Your task to perform on an android device: Open location settings Image 0: 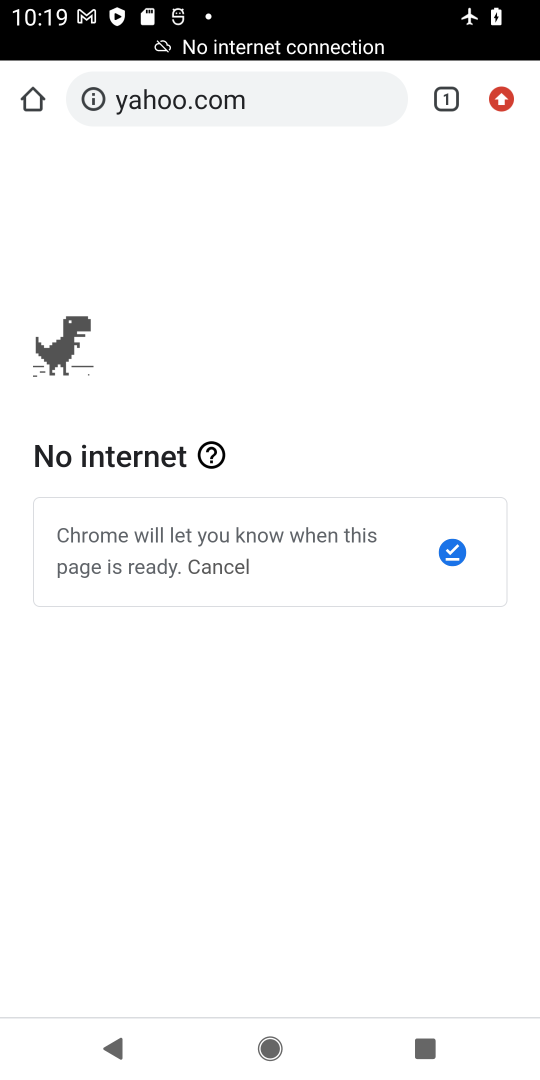
Step 0: press home button
Your task to perform on an android device: Open location settings Image 1: 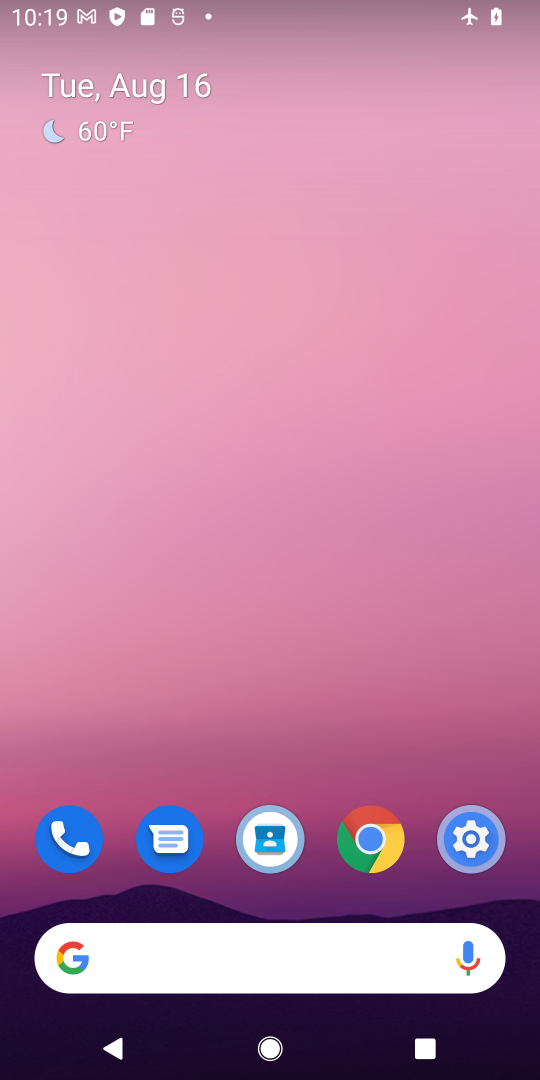
Step 1: drag from (250, 874) to (217, 5)
Your task to perform on an android device: Open location settings Image 2: 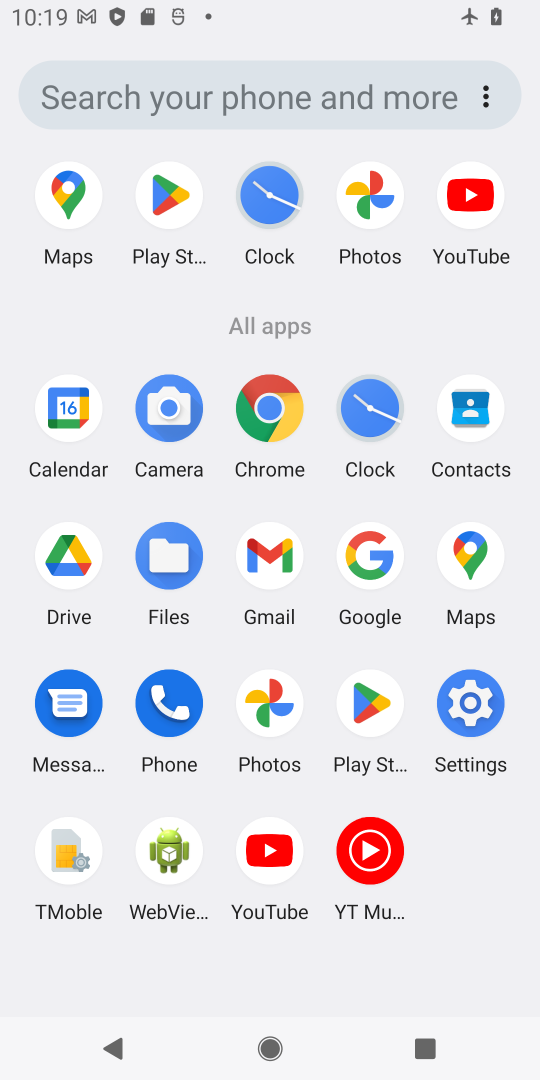
Step 2: click (480, 720)
Your task to perform on an android device: Open location settings Image 3: 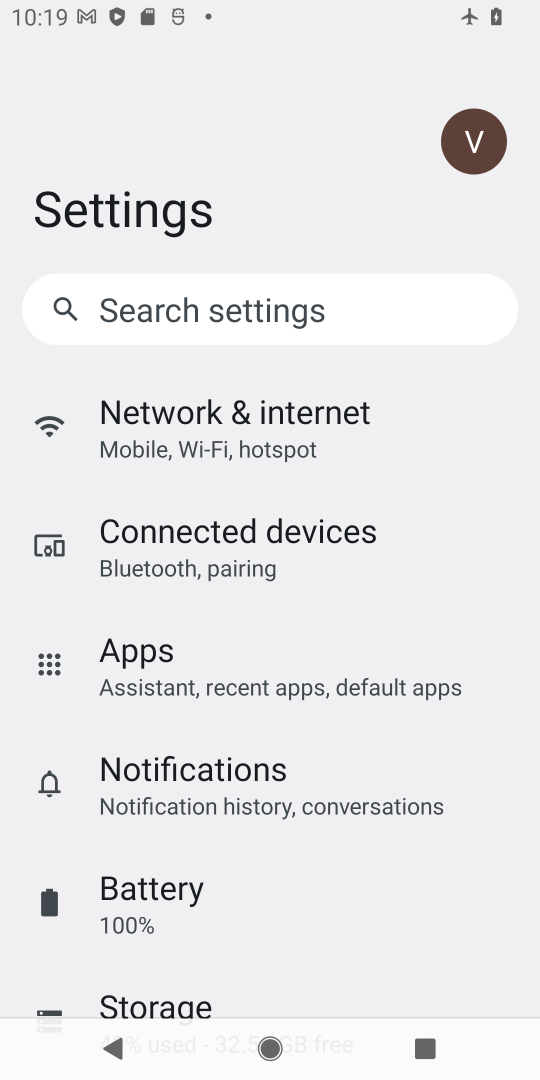
Step 3: drag from (221, 857) to (272, 403)
Your task to perform on an android device: Open location settings Image 4: 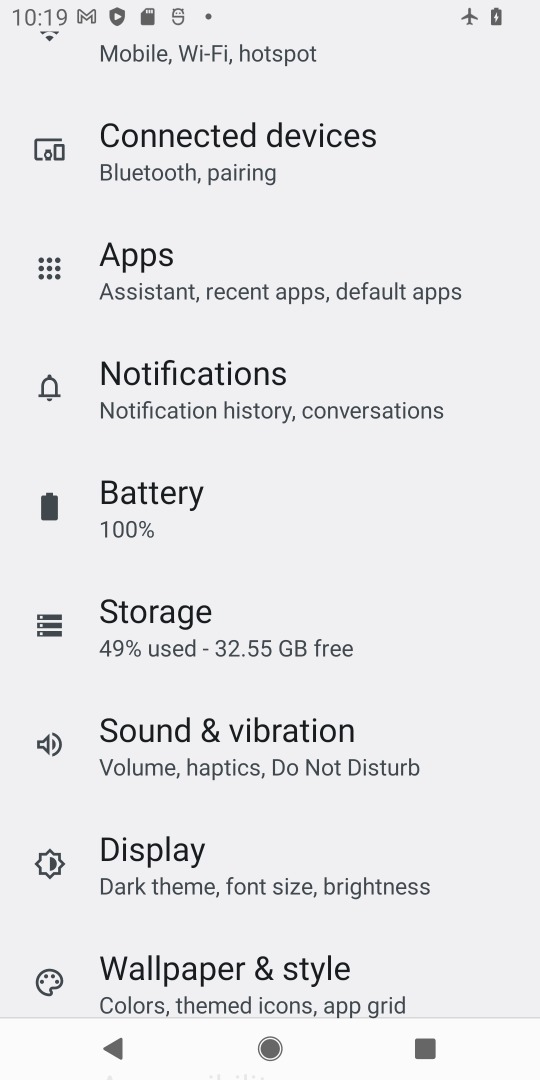
Step 4: drag from (202, 792) to (255, 375)
Your task to perform on an android device: Open location settings Image 5: 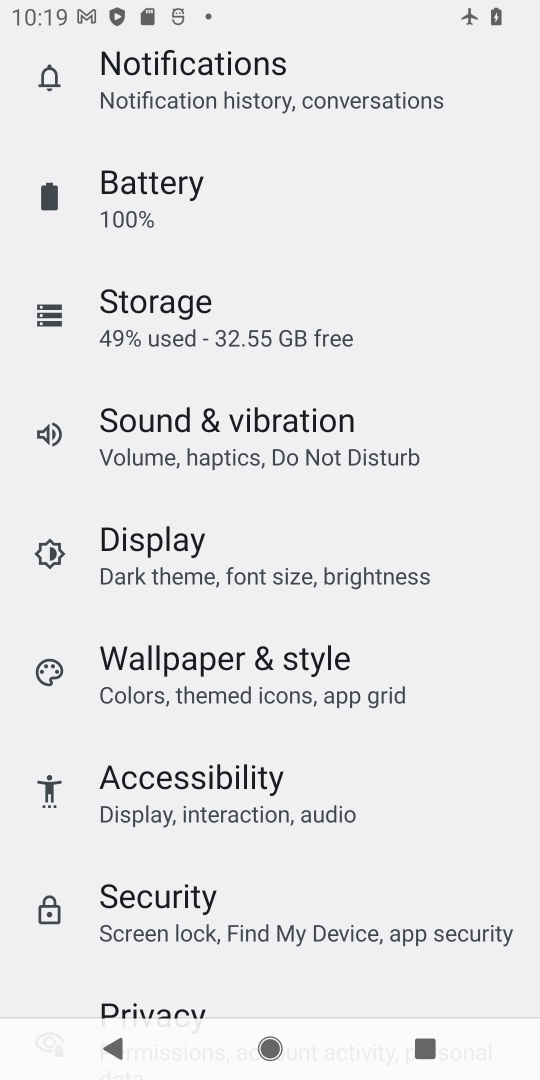
Step 5: drag from (209, 839) to (205, 489)
Your task to perform on an android device: Open location settings Image 6: 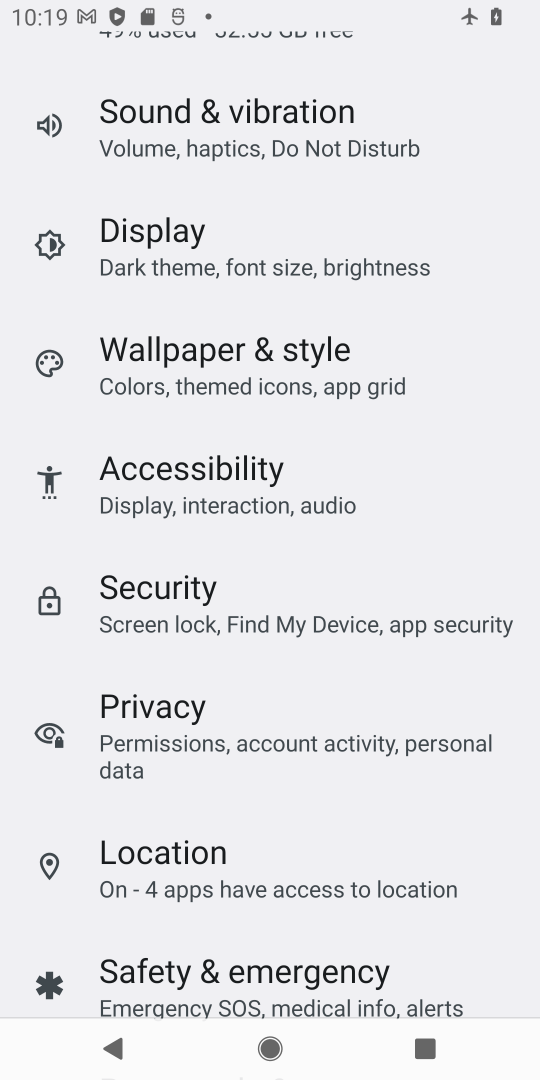
Step 6: click (189, 884)
Your task to perform on an android device: Open location settings Image 7: 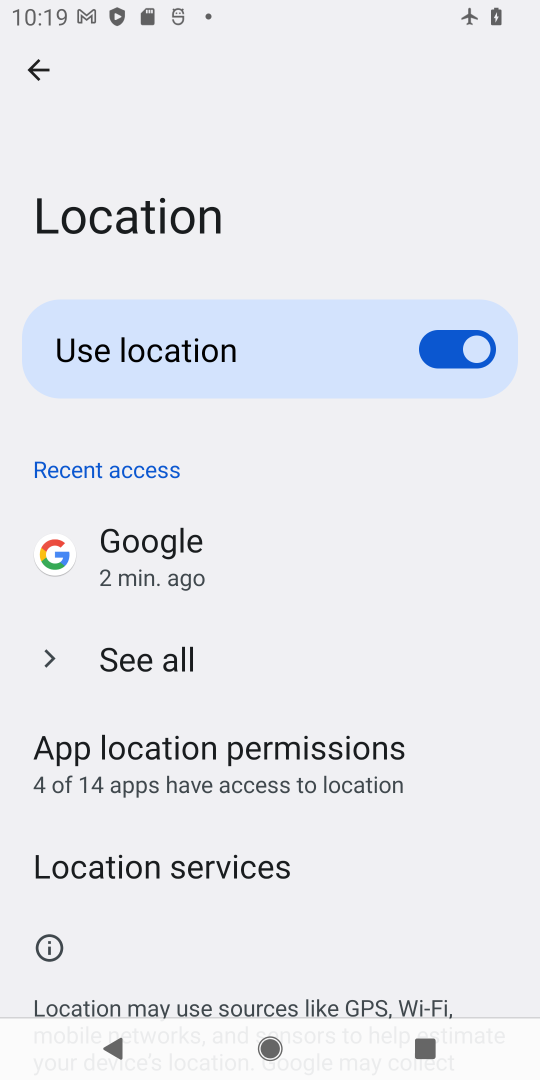
Step 7: task complete